Your task to perform on an android device: Open eBay Image 0: 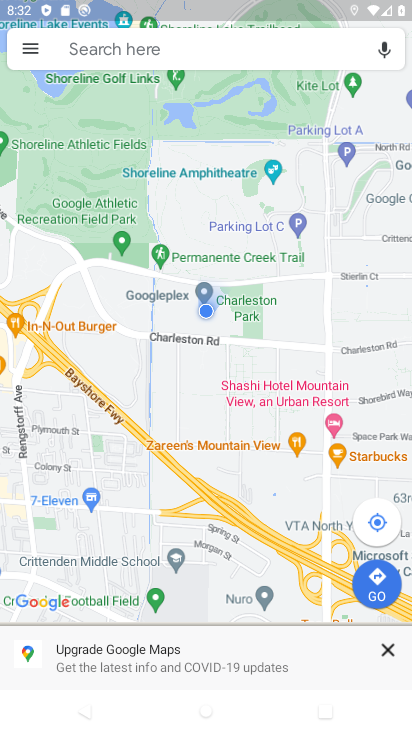
Step 0: press home button
Your task to perform on an android device: Open eBay Image 1: 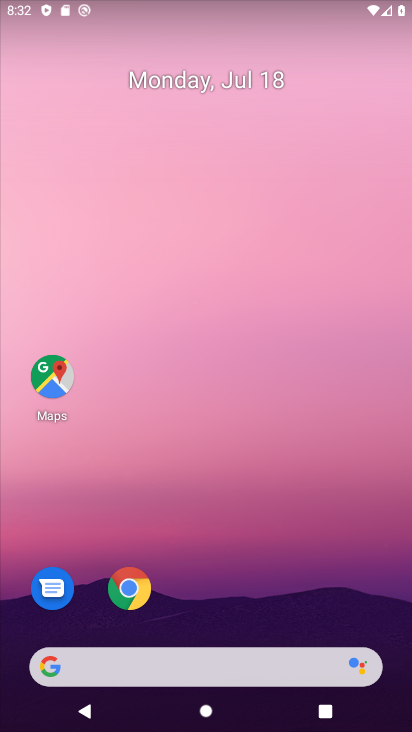
Step 1: click (130, 579)
Your task to perform on an android device: Open eBay Image 2: 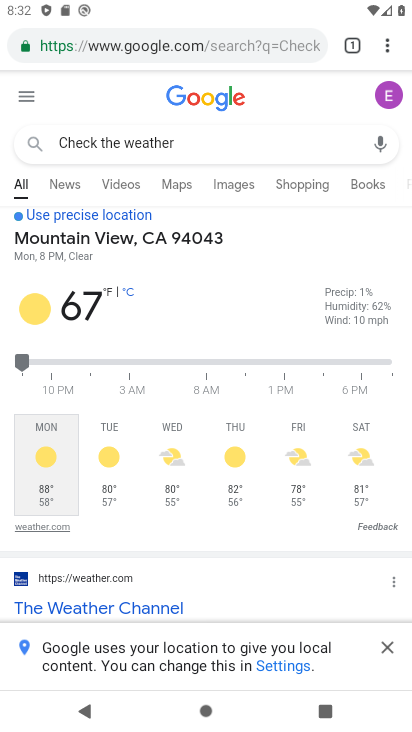
Step 2: click (258, 146)
Your task to perform on an android device: Open eBay Image 3: 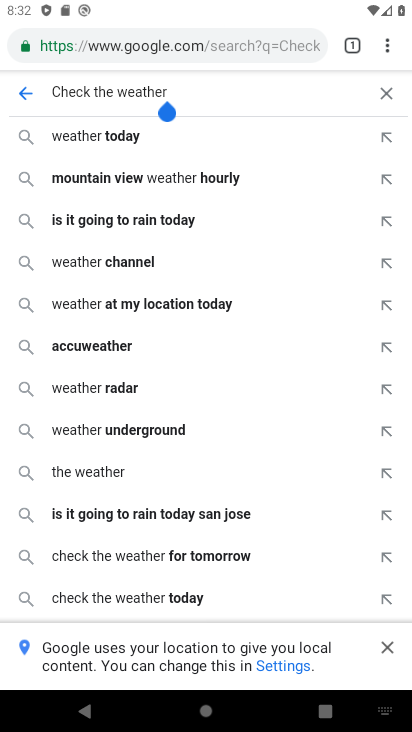
Step 3: click (218, 32)
Your task to perform on an android device: Open eBay Image 4: 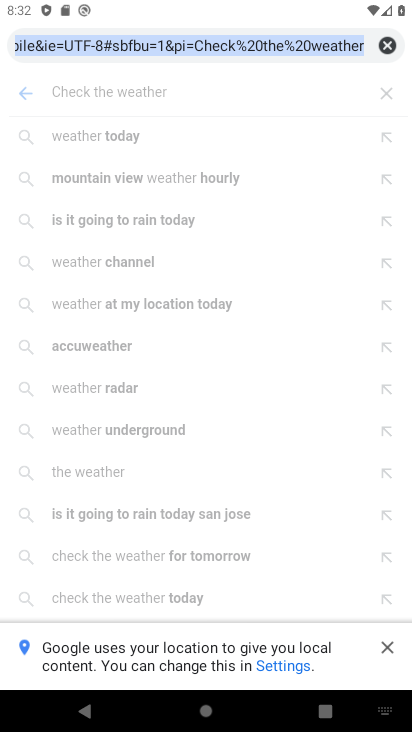
Step 4: click (389, 47)
Your task to perform on an android device: Open eBay Image 5: 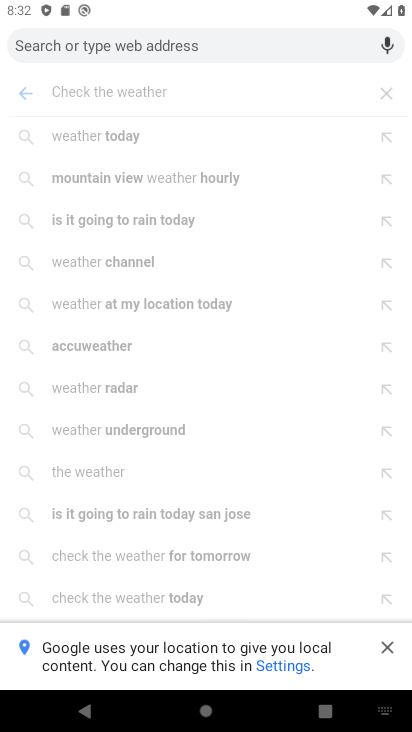
Step 5: type "eBay"
Your task to perform on an android device: Open eBay Image 6: 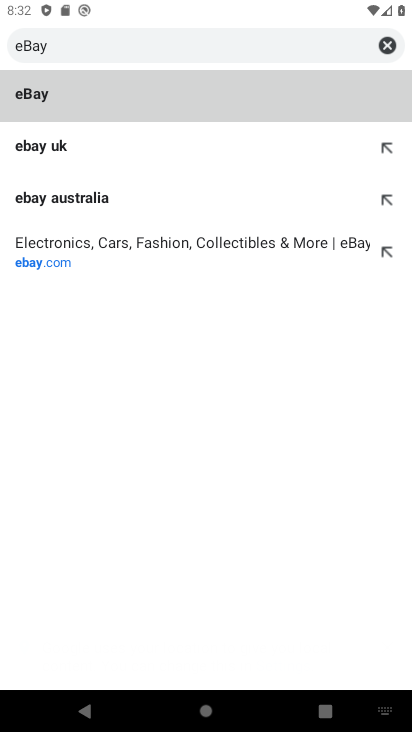
Step 6: click (31, 97)
Your task to perform on an android device: Open eBay Image 7: 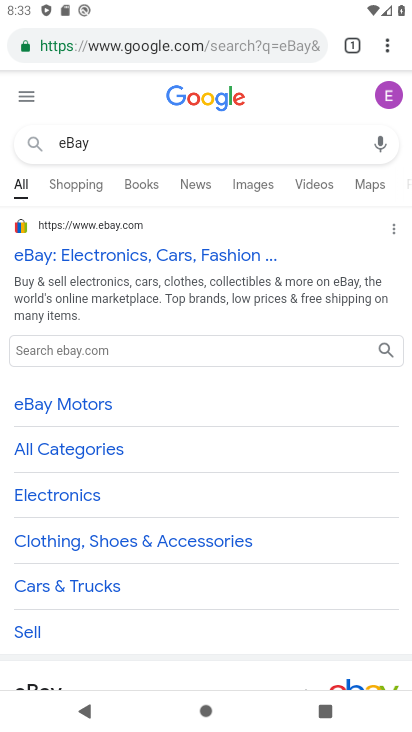
Step 7: task complete